Your task to perform on an android device: turn vacation reply on in the gmail app Image 0: 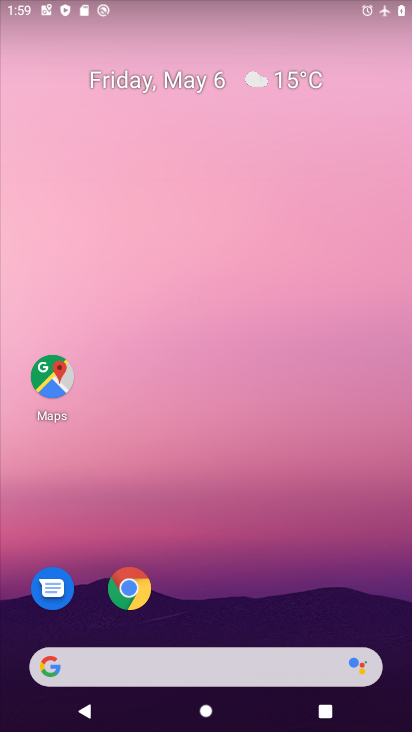
Step 0: drag from (245, 289) to (319, 145)
Your task to perform on an android device: turn vacation reply on in the gmail app Image 1: 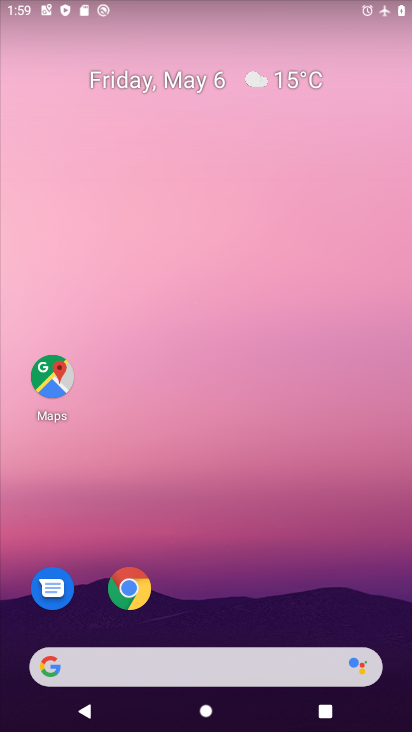
Step 1: drag from (207, 580) to (381, 210)
Your task to perform on an android device: turn vacation reply on in the gmail app Image 2: 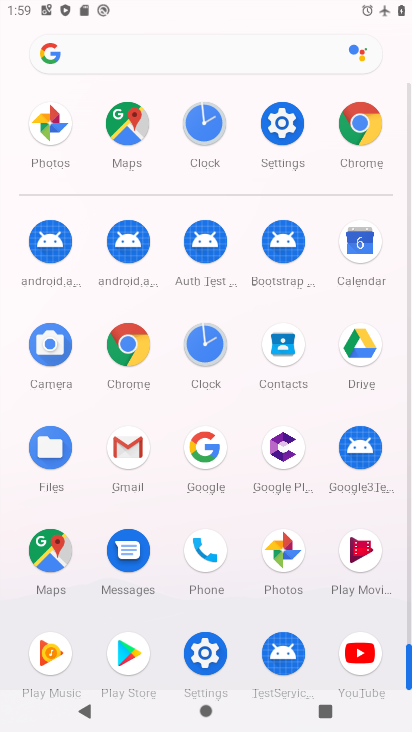
Step 2: click (129, 444)
Your task to perform on an android device: turn vacation reply on in the gmail app Image 3: 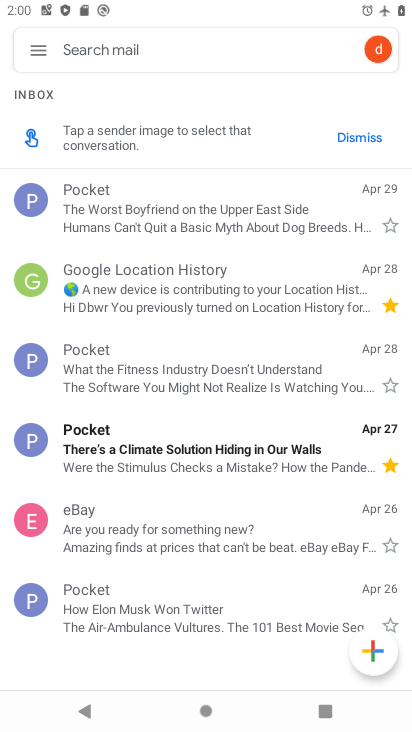
Step 3: click (37, 59)
Your task to perform on an android device: turn vacation reply on in the gmail app Image 4: 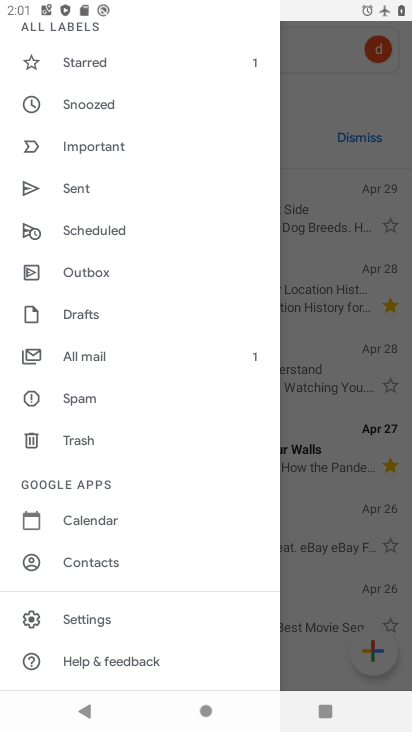
Step 4: drag from (158, 539) to (169, 249)
Your task to perform on an android device: turn vacation reply on in the gmail app Image 5: 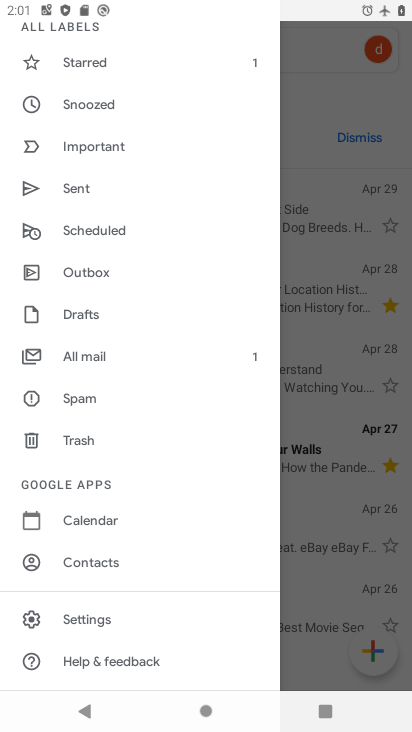
Step 5: click (111, 636)
Your task to perform on an android device: turn vacation reply on in the gmail app Image 6: 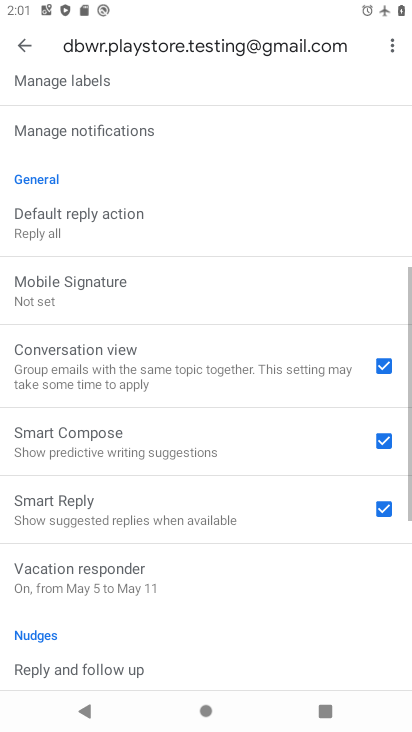
Step 6: click (125, 584)
Your task to perform on an android device: turn vacation reply on in the gmail app Image 7: 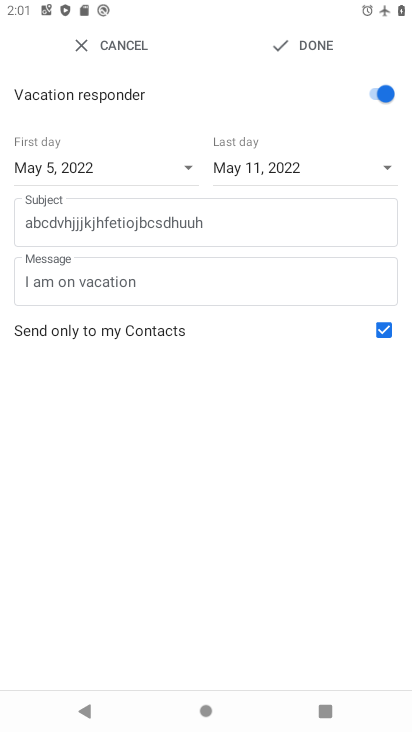
Step 7: click (306, 40)
Your task to perform on an android device: turn vacation reply on in the gmail app Image 8: 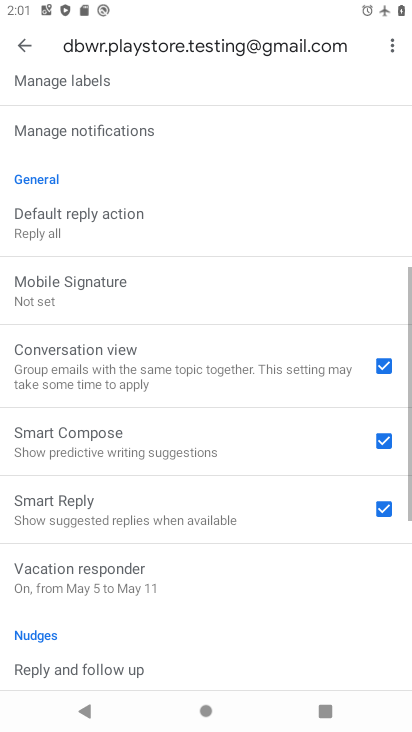
Step 8: task complete